Your task to perform on an android device: Turn on the flashlight Image 0: 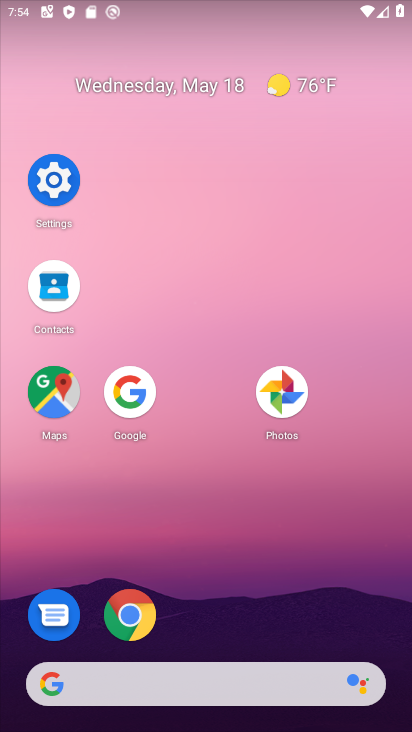
Step 0: drag from (325, 95) to (342, 423)
Your task to perform on an android device: Turn on the flashlight Image 1: 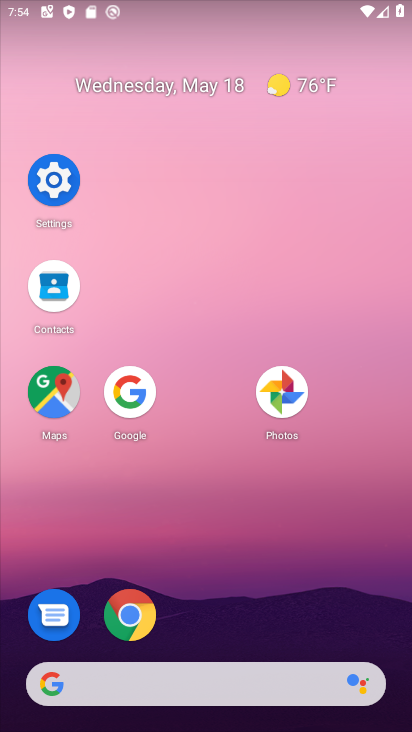
Step 1: task complete